Your task to perform on an android device: Go to network settings Image 0: 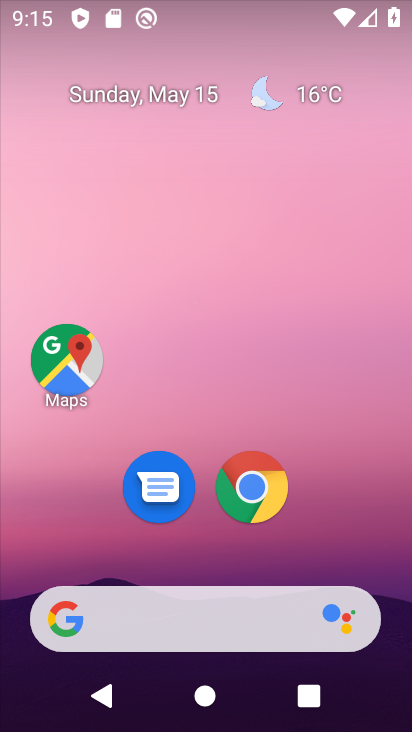
Step 0: drag from (338, 535) to (346, 124)
Your task to perform on an android device: Go to network settings Image 1: 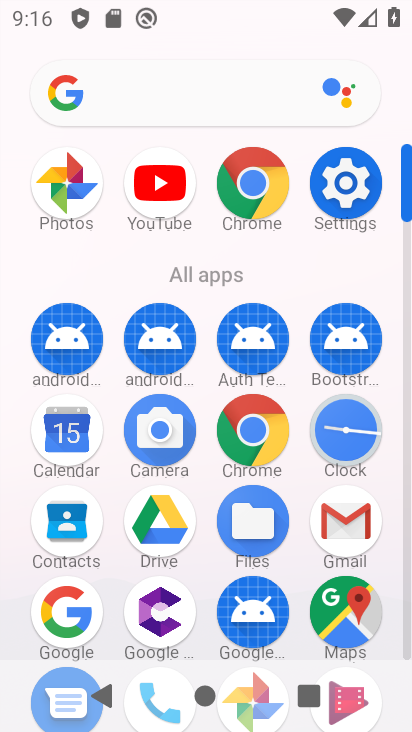
Step 1: click (356, 196)
Your task to perform on an android device: Go to network settings Image 2: 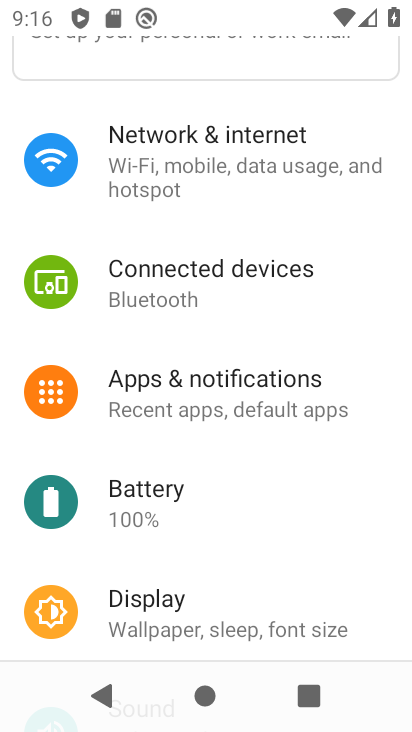
Step 2: click (251, 157)
Your task to perform on an android device: Go to network settings Image 3: 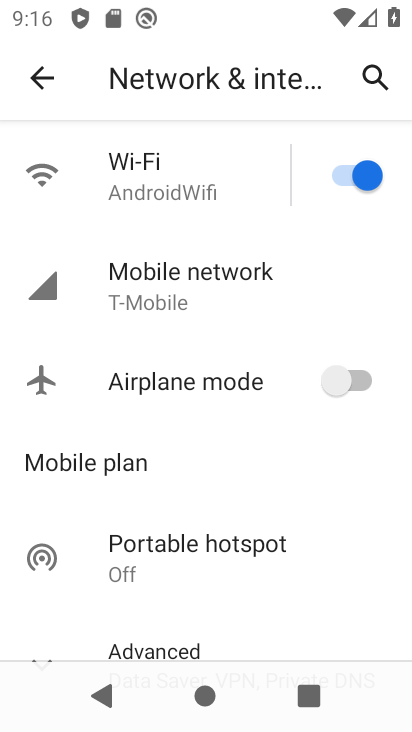
Step 3: click (248, 266)
Your task to perform on an android device: Go to network settings Image 4: 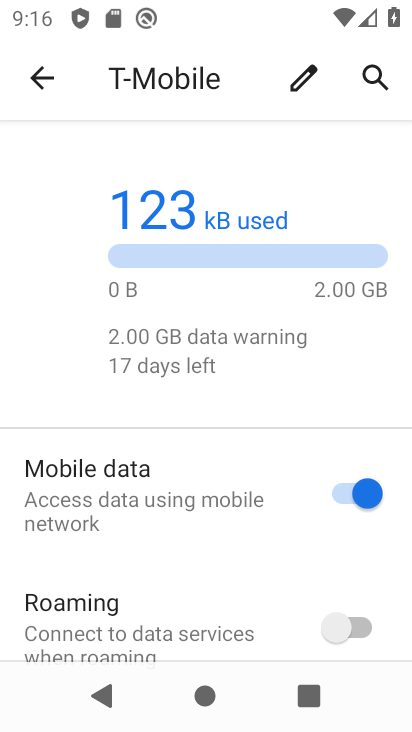
Step 4: task complete